Your task to perform on an android device: Go to network settings Image 0: 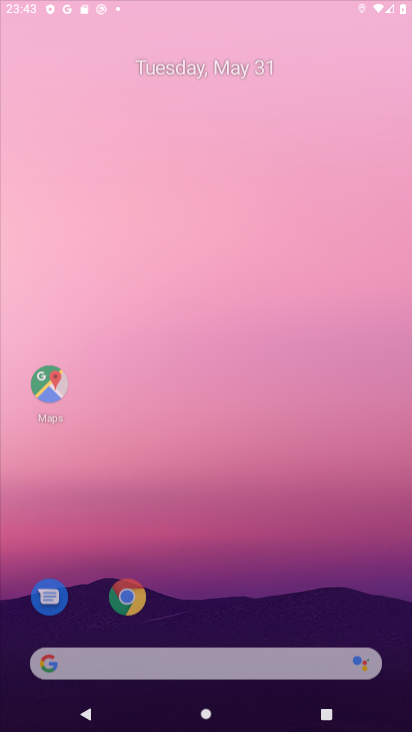
Step 0: click (282, 20)
Your task to perform on an android device: Go to network settings Image 1: 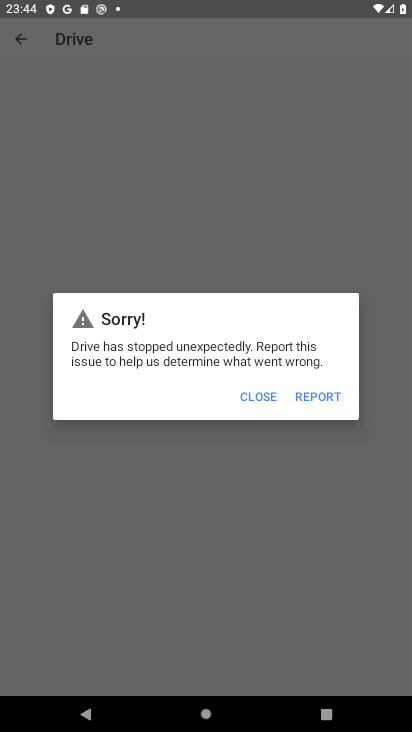
Step 1: press home button
Your task to perform on an android device: Go to network settings Image 2: 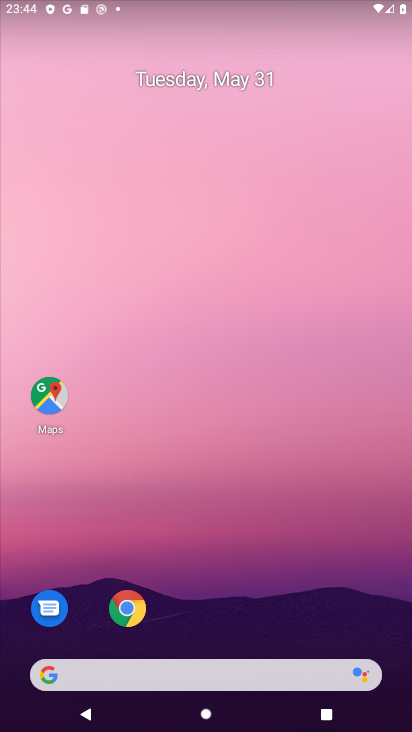
Step 2: drag from (257, 629) to (275, 74)
Your task to perform on an android device: Go to network settings Image 3: 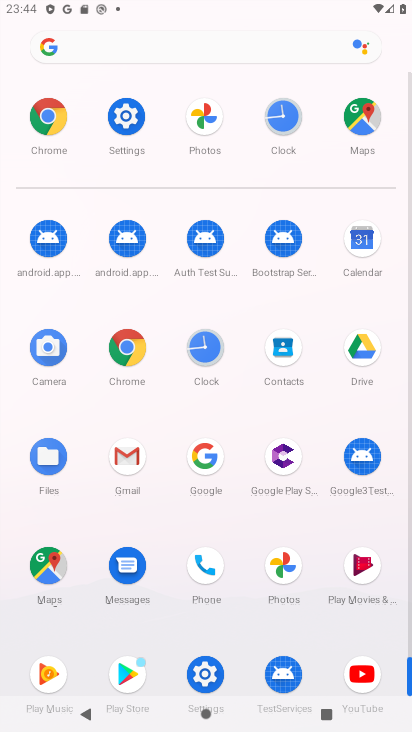
Step 3: click (120, 122)
Your task to perform on an android device: Go to network settings Image 4: 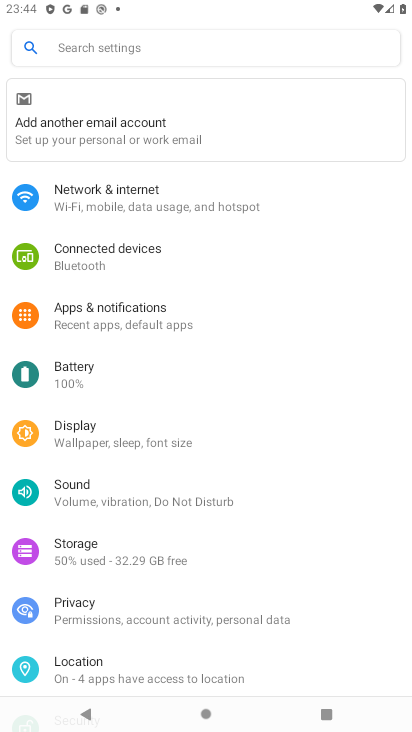
Step 4: click (141, 204)
Your task to perform on an android device: Go to network settings Image 5: 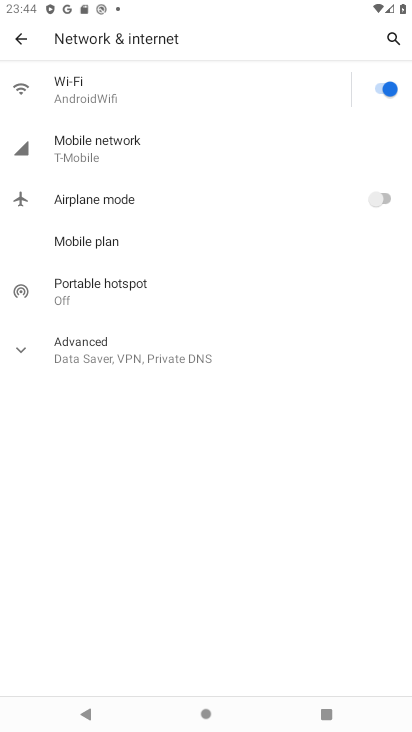
Step 5: task complete